Your task to perform on an android device: toggle notifications settings in the gmail app Image 0: 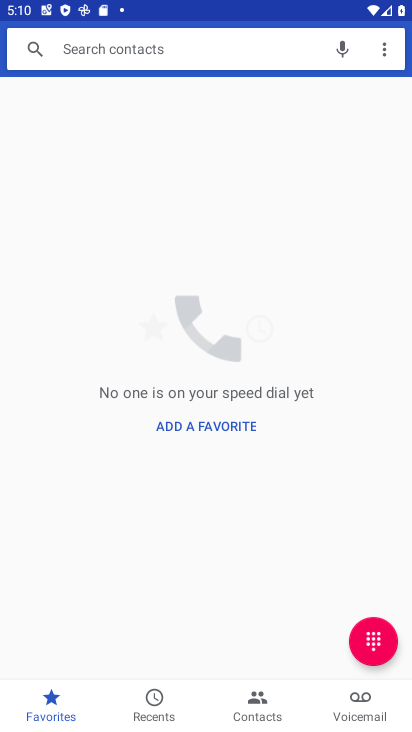
Step 0: press home button
Your task to perform on an android device: toggle notifications settings in the gmail app Image 1: 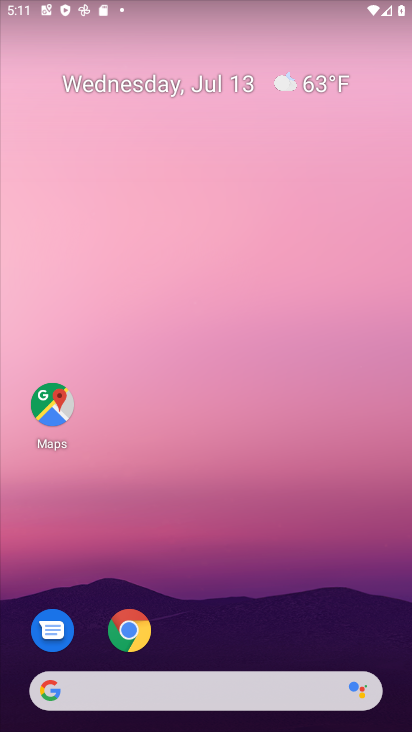
Step 1: drag from (228, 421) to (229, 130)
Your task to perform on an android device: toggle notifications settings in the gmail app Image 2: 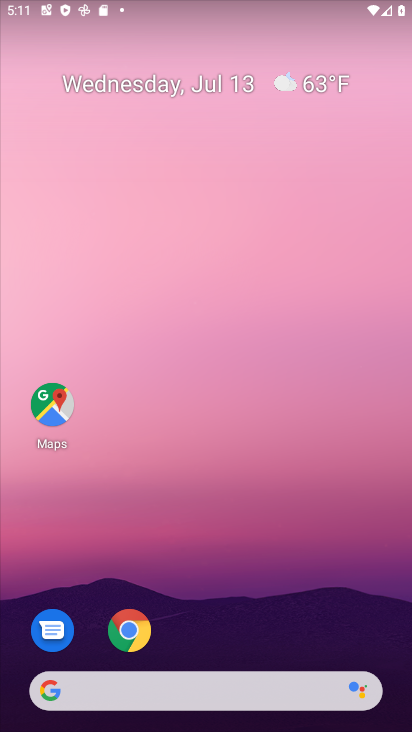
Step 2: drag from (309, 634) to (287, 3)
Your task to perform on an android device: toggle notifications settings in the gmail app Image 3: 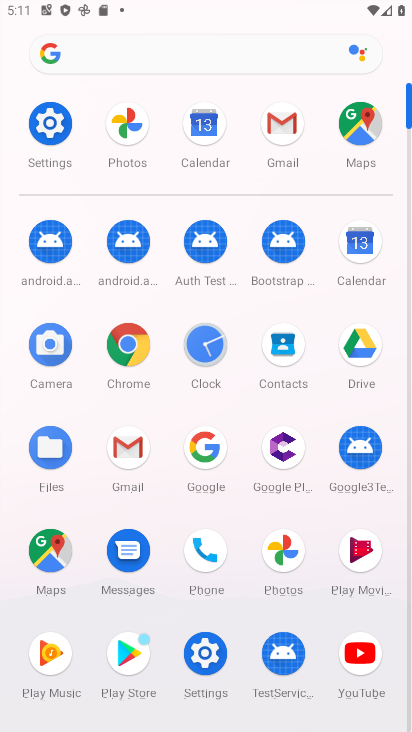
Step 3: click (274, 127)
Your task to perform on an android device: toggle notifications settings in the gmail app Image 4: 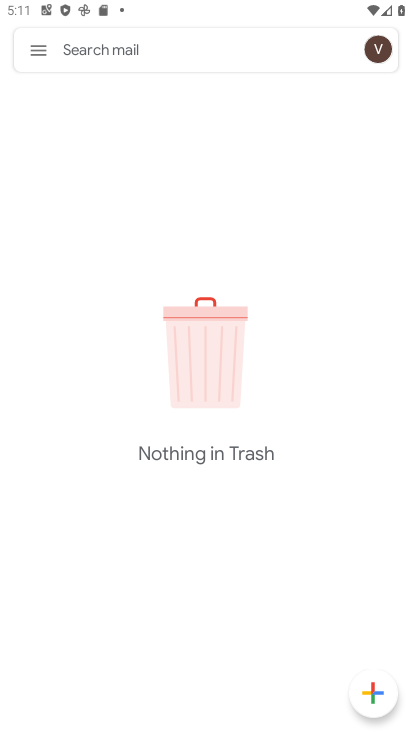
Step 4: click (32, 52)
Your task to perform on an android device: toggle notifications settings in the gmail app Image 5: 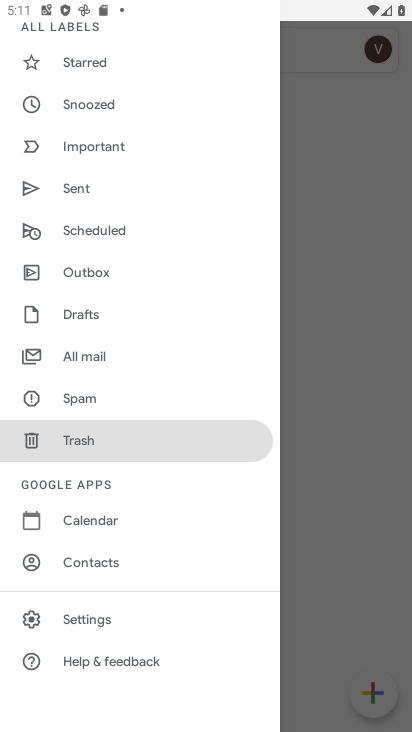
Step 5: click (100, 620)
Your task to perform on an android device: toggle notifications settings in the gmail app Image 6: 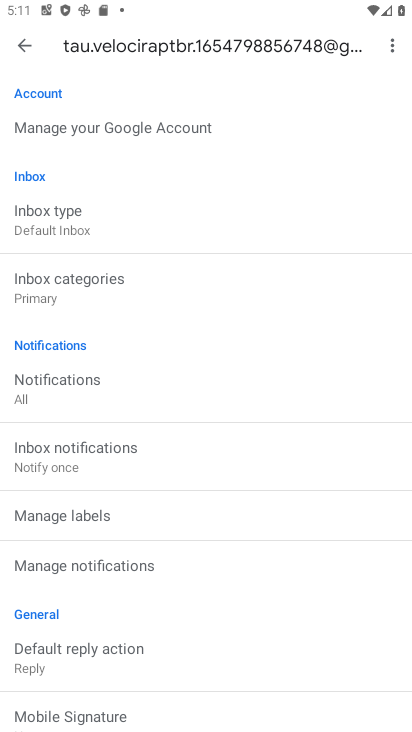
Step 6: click (84, 570)
Your task to perform on an android device: toggle notifications settings in the gmail app Image 7: 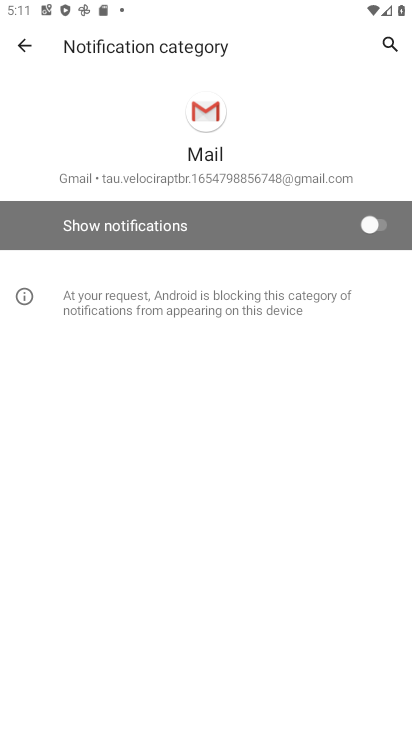
Step 7: click (364, 220)
Your task to perform on an android device: toggle notifications settings in the gmail app Image 8: 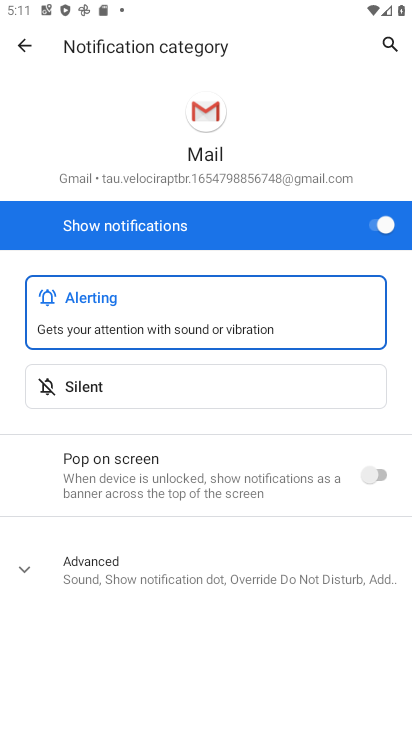
Step 8: task complete